Your task to perform on an android device: change alarm snooze length Image 0: 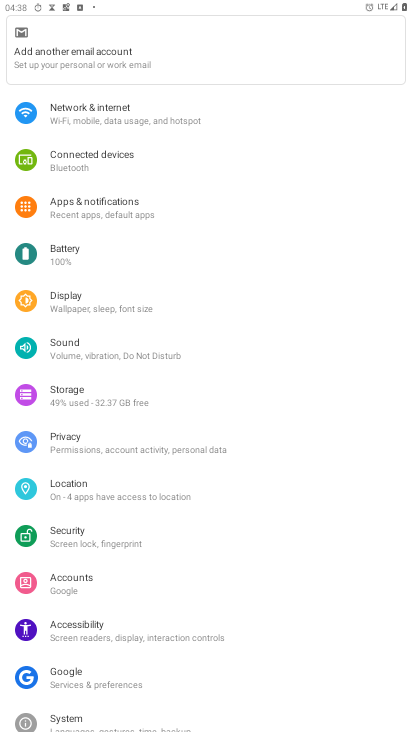
Step 0: press home button
Your task to perform on an android device: change alarm snooze length Image 1: 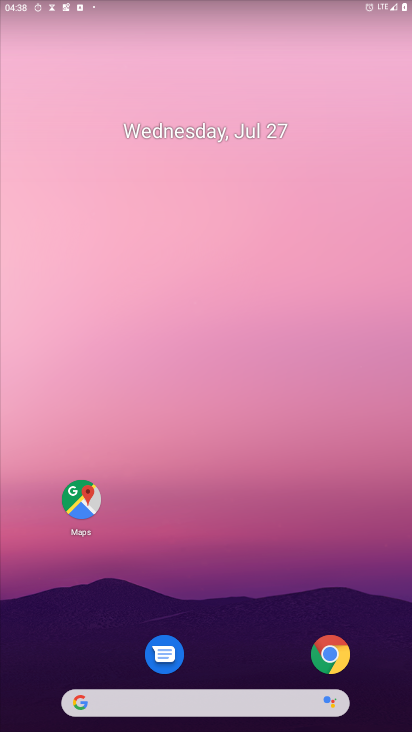
Step 1: drag from (238, 694) to (303, 26)
Your task to perform on an android device: change alarm snooze length Image 2: 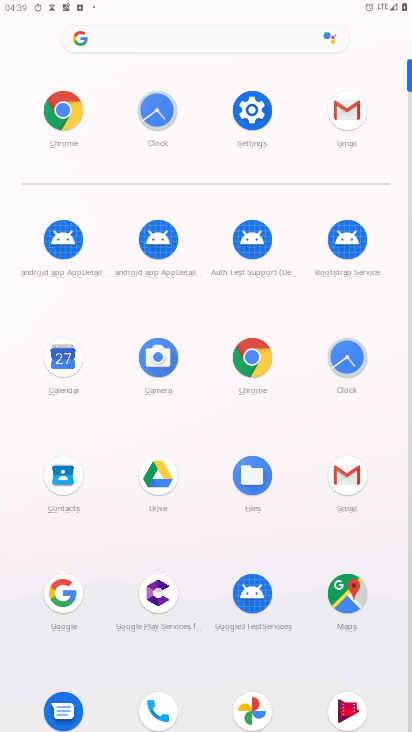
Step 2: click (347, 350)
Your task to perform on an android device: change alarm snooze length Image 3: 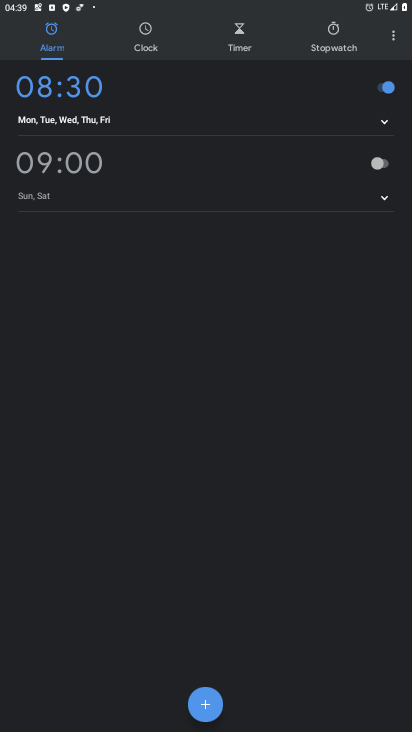
Step 3: click (398, 32)
Your task to perform on an android device: change alarm snooze length Image 4: 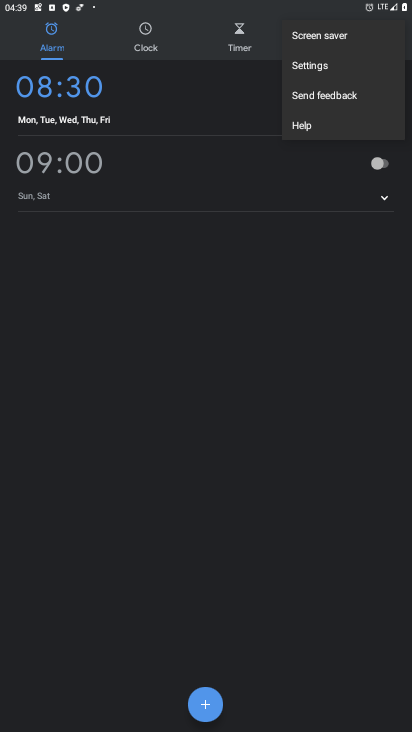
Step 4: click (312, 61)
Your task to perform on an android device: change alarm snooze length Image 5: 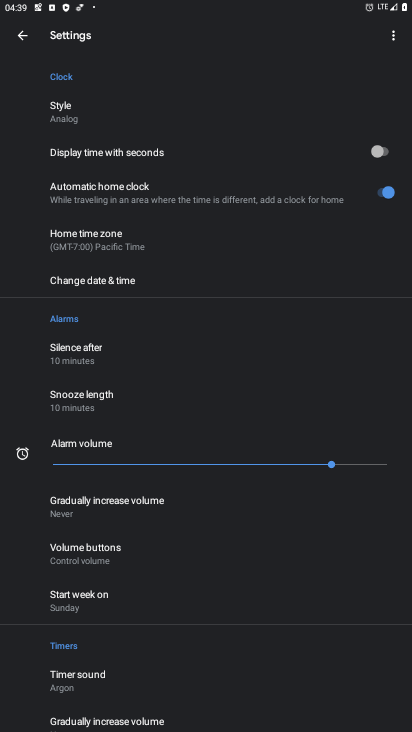
Step 5: click (89, 403)
Your task to perform on an android device: change alarm snooze length Image 6: 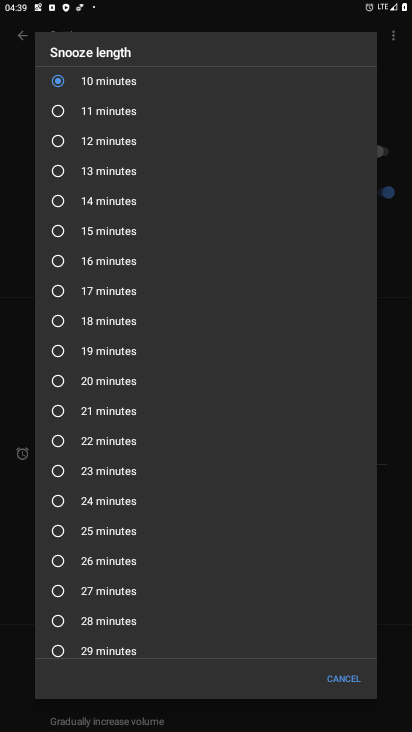
Step 6: click (58, 164)
Your task to perform on an android device: change alarm snooze length Image 7: 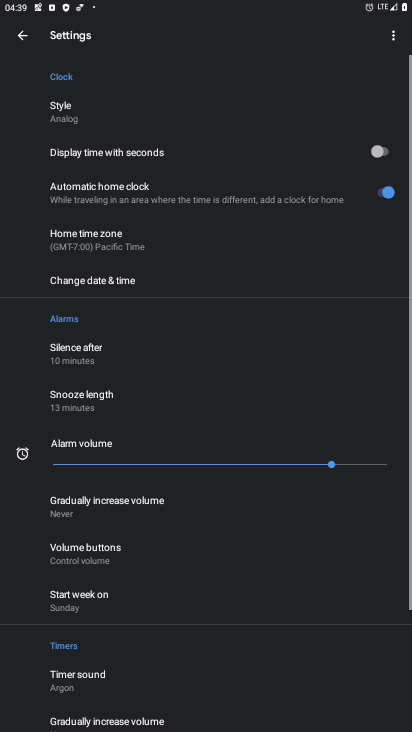
Step 7: task complete